Your task to perform on an android device: Open internet settings Image 0: 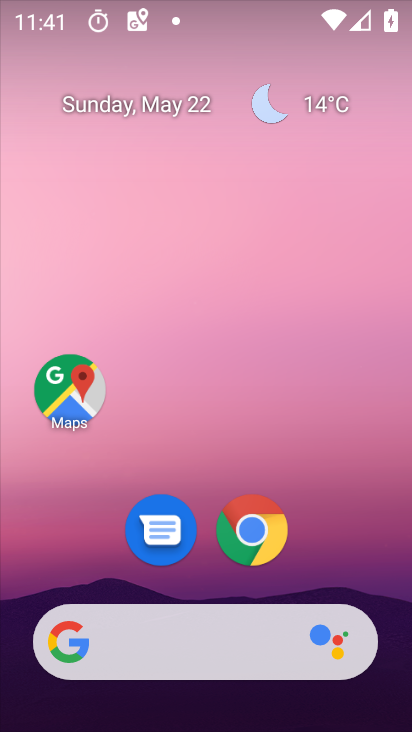
Step 0: drag from (368, 555) to (321, 198)
Your task to perform on an android device: Open internet settings Image 1: 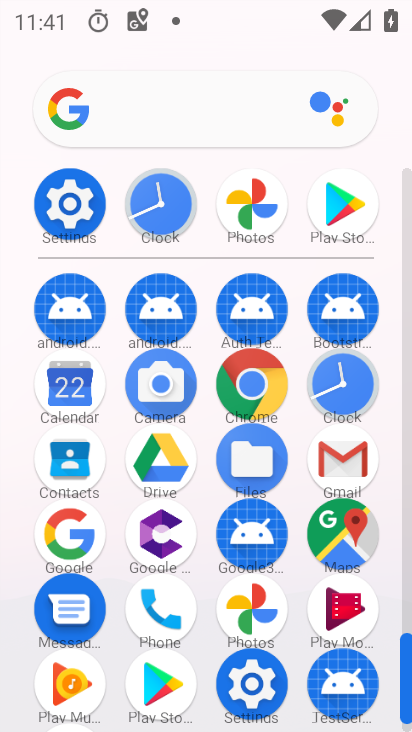
Step 1: click (65, 172)
Your task to perform on an android device: Open internet settings Image 2: 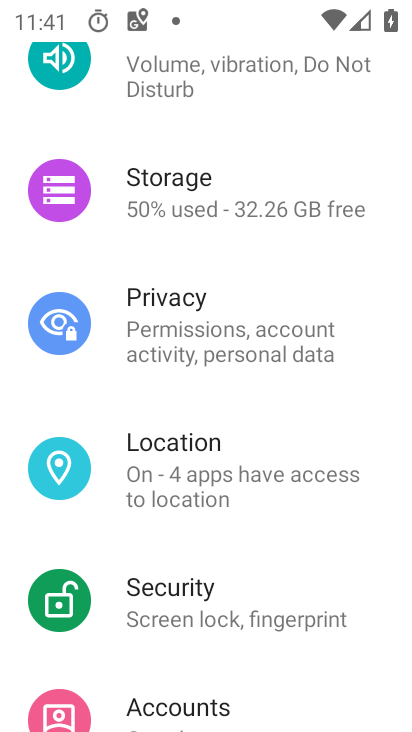
Step 2: drag from (386, 110) to (410, 666)
Your task to perform on an android device: Open internet settings Image 3: 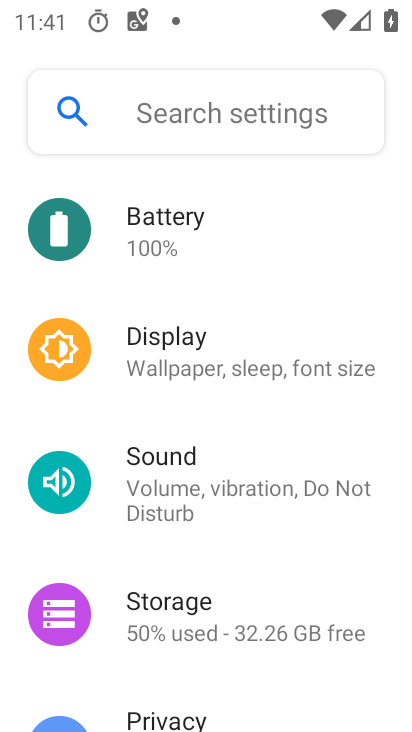
Step 3: drag from (288, 102) to (366, 470)
Your task to perform on an android device: Open internet settings Image 4: 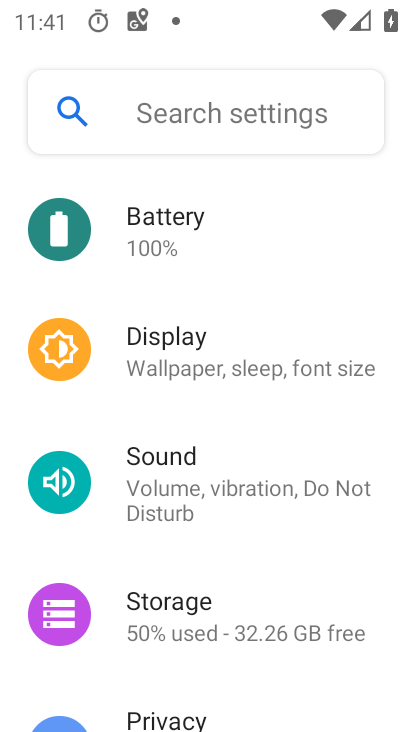
Step 4: drag from (241, 204) to (355, 532)
Your task to perform on an android device: Open internet settings Image 5: 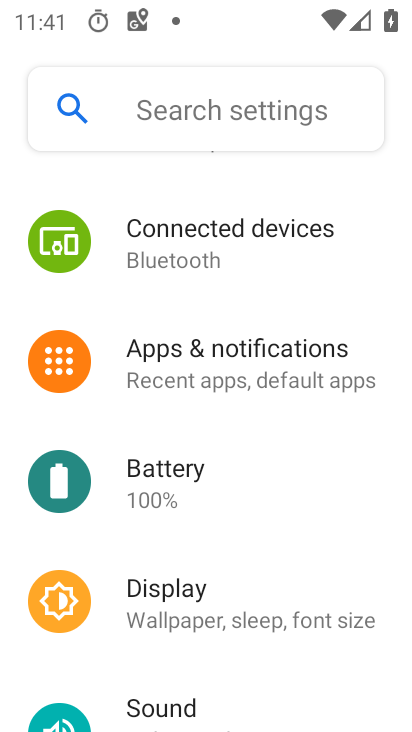
Step 5: drag from (200, 158) to (317, 478)
Your task to perform on an android device: Open internet settings Image 6: 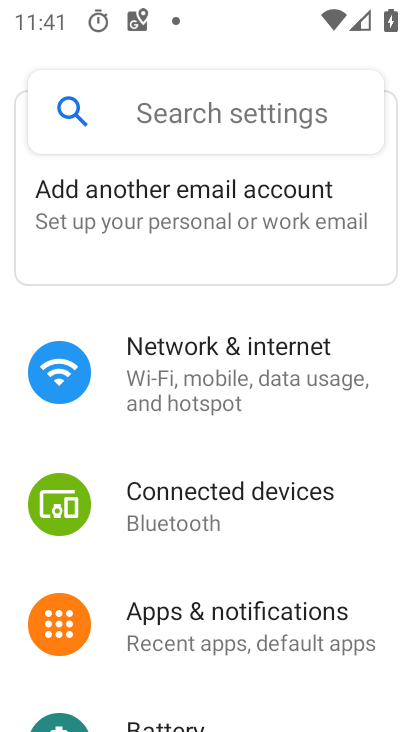
Step 6: click (209, 370)
Your task to perform on an android device: Open internet settings Image 7: 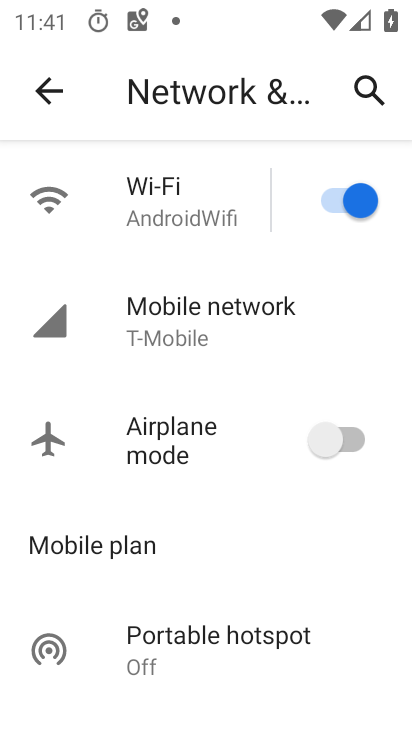
Step 7: click (180, 211)
Your task to perform on an android device: Open internet settings Image 8: 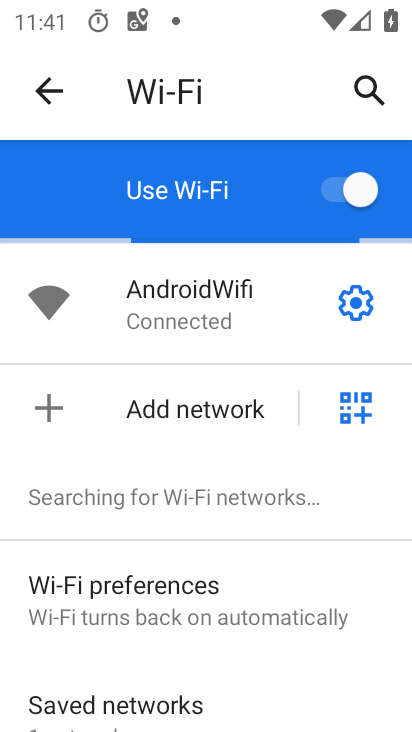
Step 8: click (344, 302)
Your task to perform on an android device: Open internet settings Image 9: 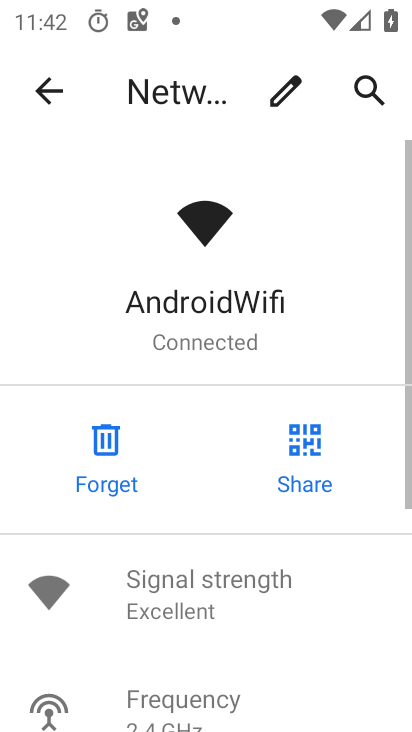
Step 9: task complete